Your task to perform on an android device: Go to display settings Image 0: 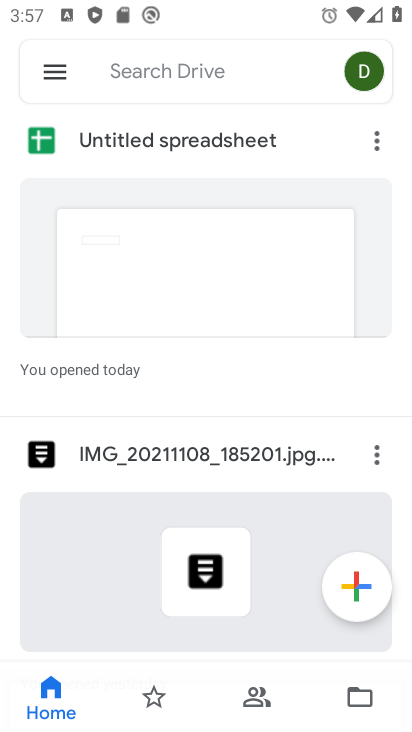
Step 0: drag from (211, 563) to (281, 209)
Your task to perform on an android device: Go to display settings Image 1: 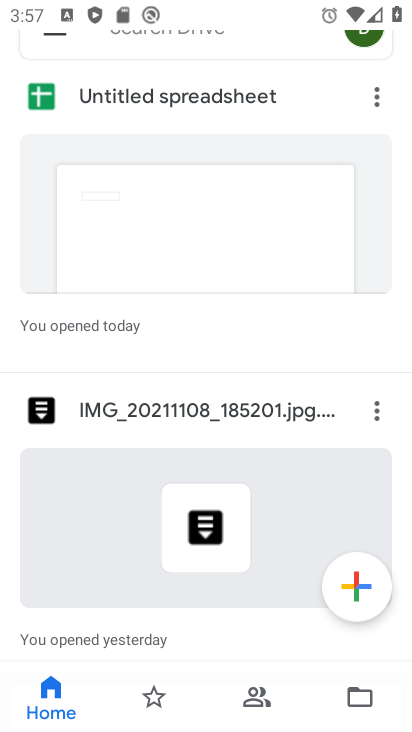
Step 1: drag from (277, 175) to (284, 594)
Your task to perform on an android device: Go to display settings Image 2: 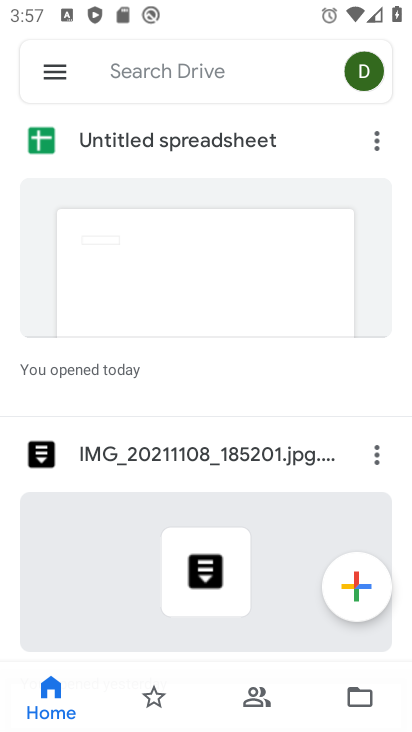
Step 2: press home button
Your task to perform on an android device: Go to display settings Image 3: 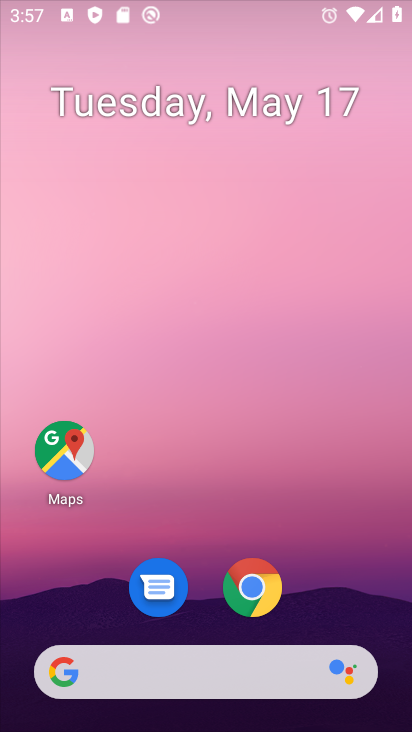
Step 3: drag from (212, 586) to (262, 132)
Your task to perform on an android device: Go to display settings Image 4: 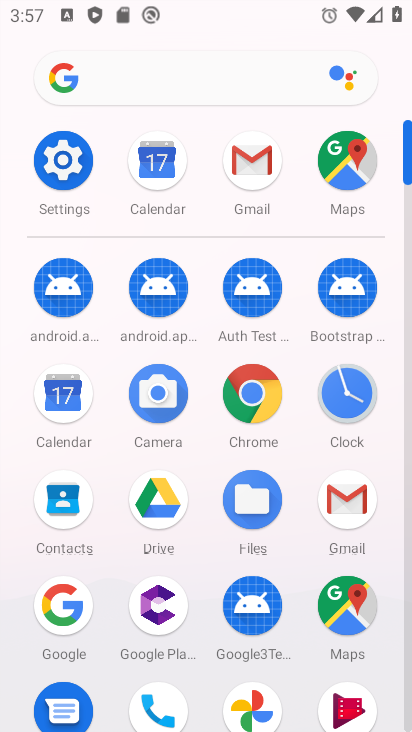
Step 4: drag from (211, 667) to (230, 363)
Your task to perform on an android device: Go to display settings Image 5: 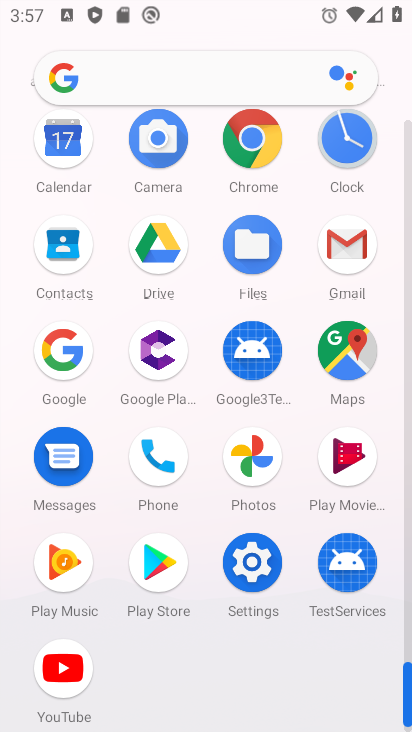
Step 5: click (245, 561)
Your task to perform on an android device: Go to display settings Image 6: 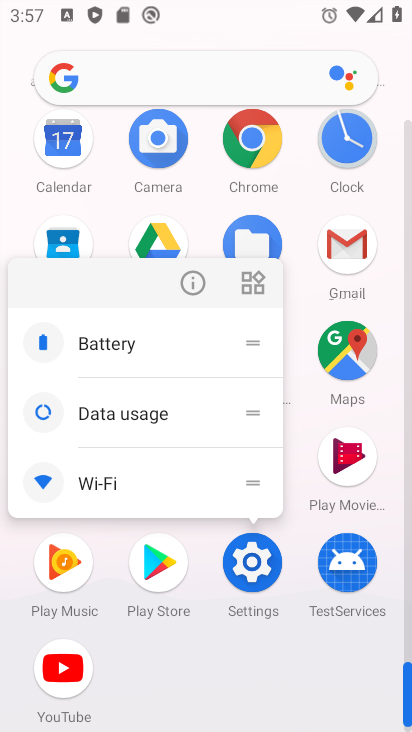
Step 6: click (199, 273)
Your task to perform on an android device: Go to display settings Image 7: 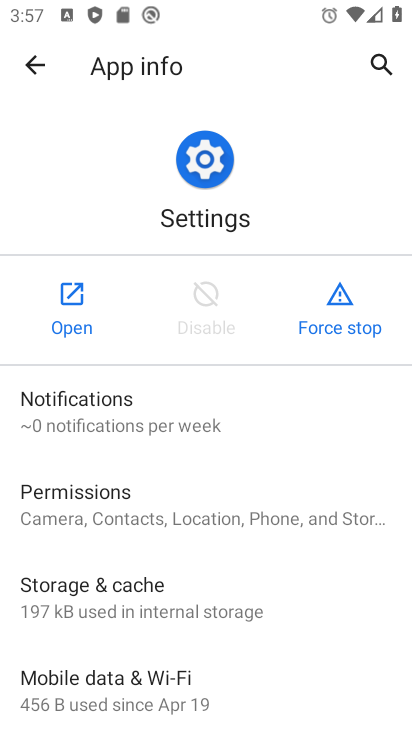
Step 7: click (79, 321)
Your task to perform on an android device: Go to display settings Image 8: 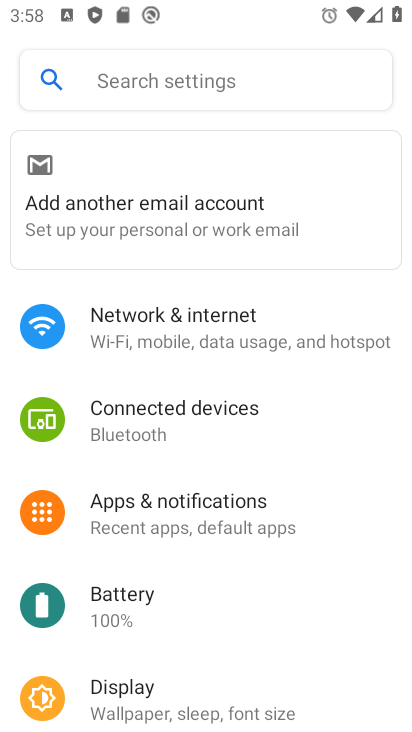
Step 8: drag from (236, 571) to (284, 293)
Your task to perform on an android device: Go to display settings Image 9: 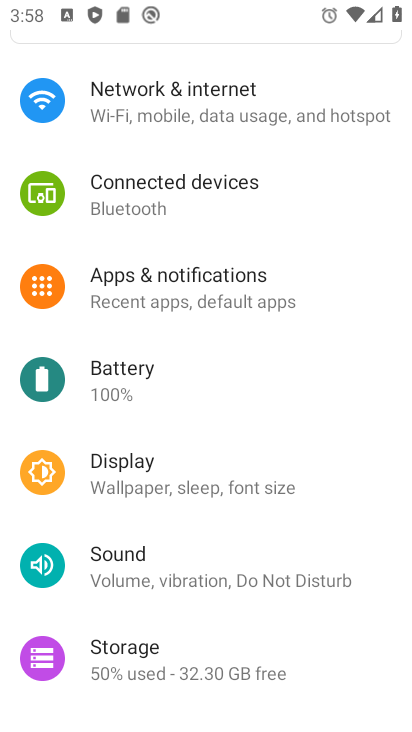
Step 9: click (205, 491)
Your task to perform on an android device: Go to display settings Image 10: 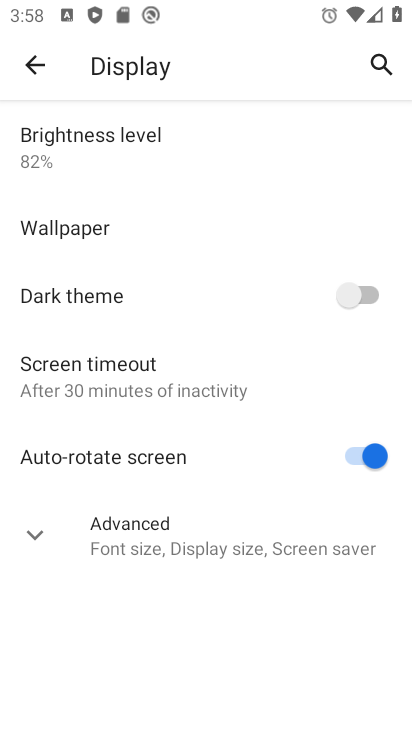
Step 10: click (149, 522)
Your task to perform on an android device: Go to display settings Image 11: 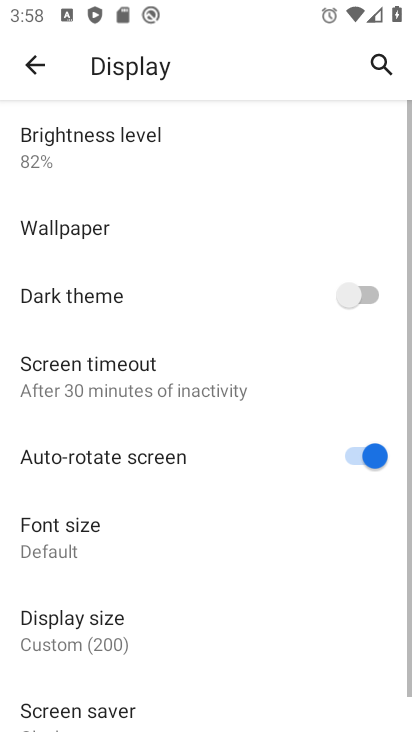
Step 11: task complete